Your task to perform on an android device: open the mobile data screen to see how much data has been used Image 0: 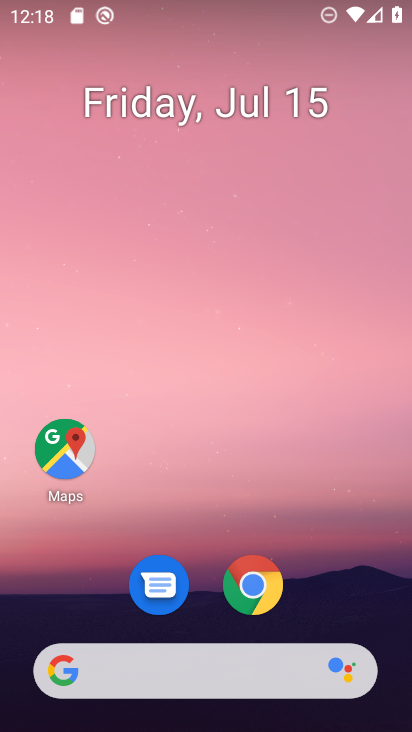
Step 0: drag from (255, 476) to (230, 33)
Your task to perform on an android device: open the mobile data screen to see how much data has been used Image 1: 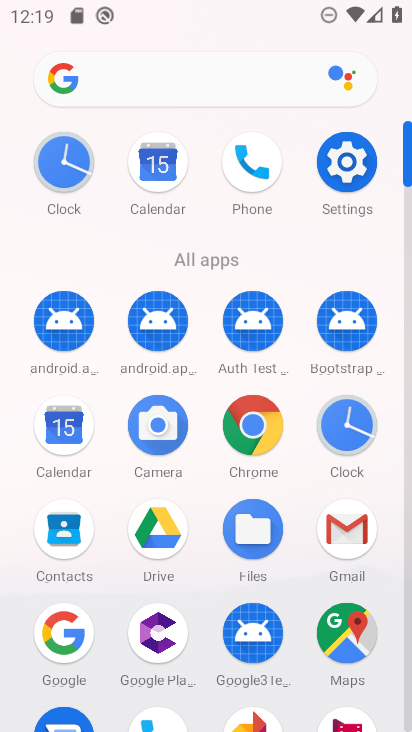
Step 1: click (339, 142)
Your task to perform on an android device: open the mobile data screen to see how much data has been used Image 2: 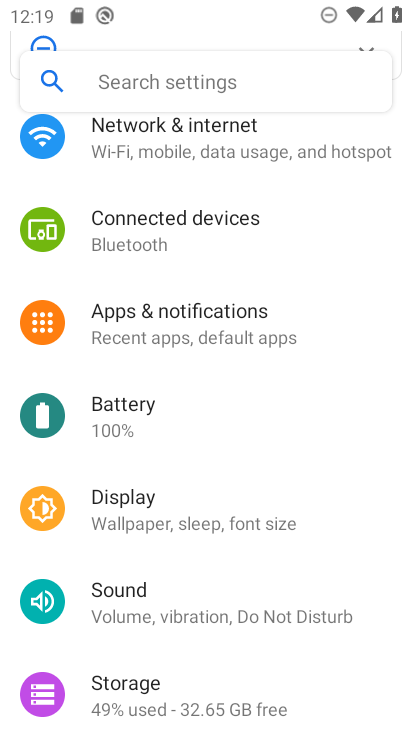
Step 2: drag from (260, 397) to (261, 565)
Your task to perform on an android device: open the mobile data screen to see how much data has been used Image 3: 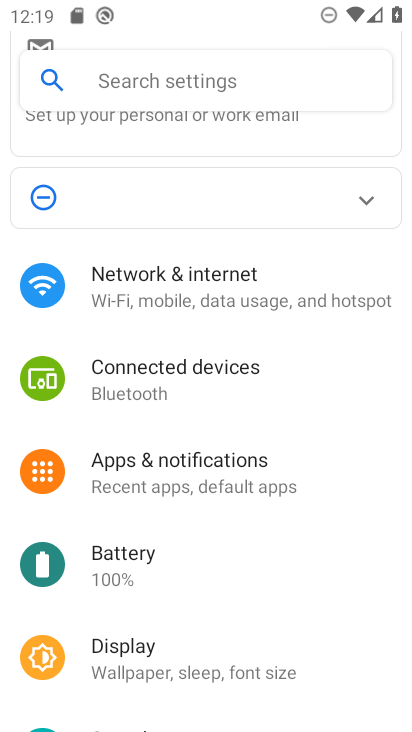
Step 3: click (258, 299)
Your task to perform on an android device: open the mobile data screen to see how much data has been used Image 4: 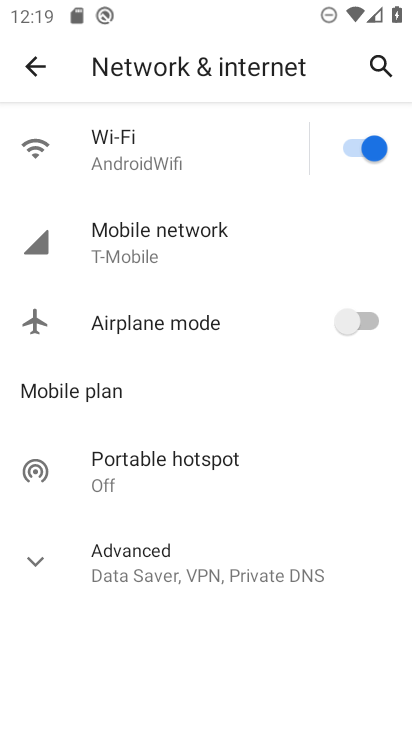
Step 4: click (187, 238)
Your task to perform on an android device: open the mobile data screen to see how much data has been used Image 5: 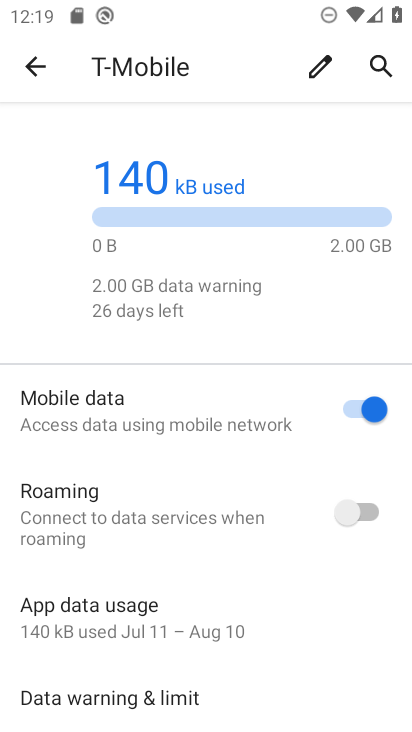
Step 5: task complete